Your task to perform on an android device: install app "Facebook Messenger" Image 0: 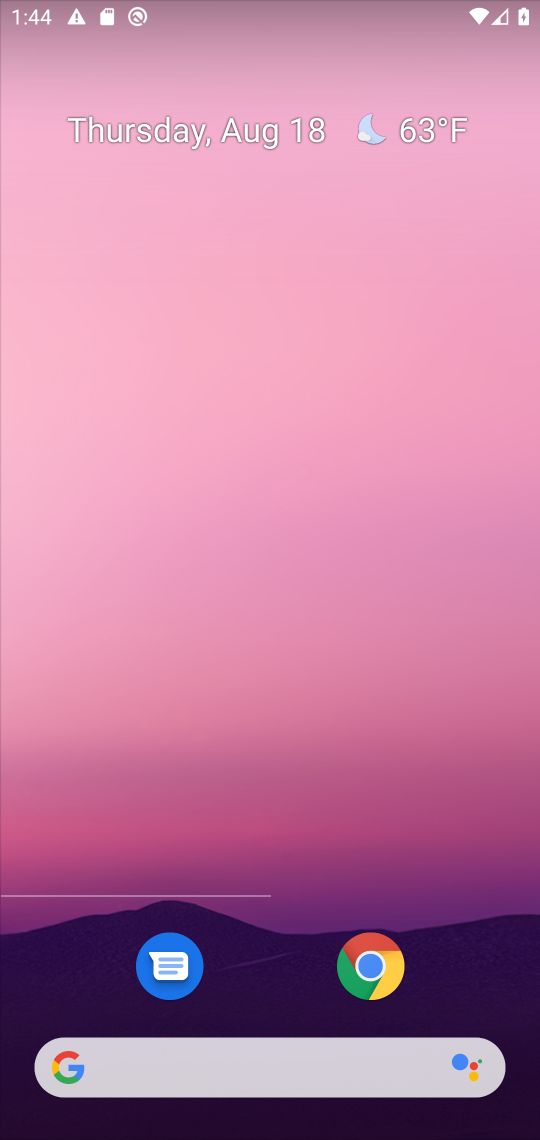
Step 0: press home button
Your task to perform on an android device: install app "Facebook Messenger" Image 1: 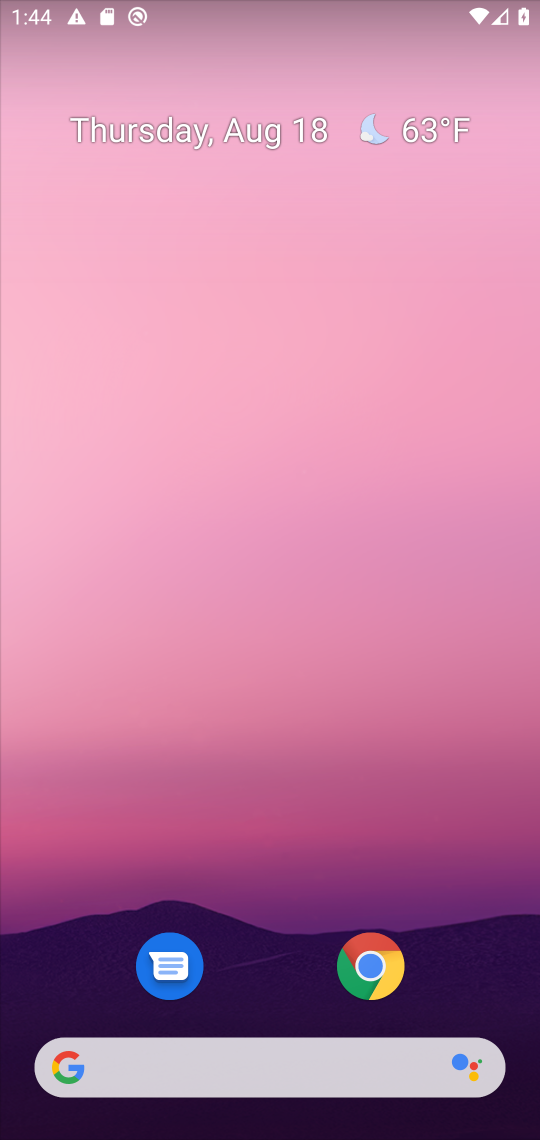
Step 1: drag from (267, 1012) to (344, 135)
Your task to perform on an android device: install app "Facebook Messenger" Image 2: 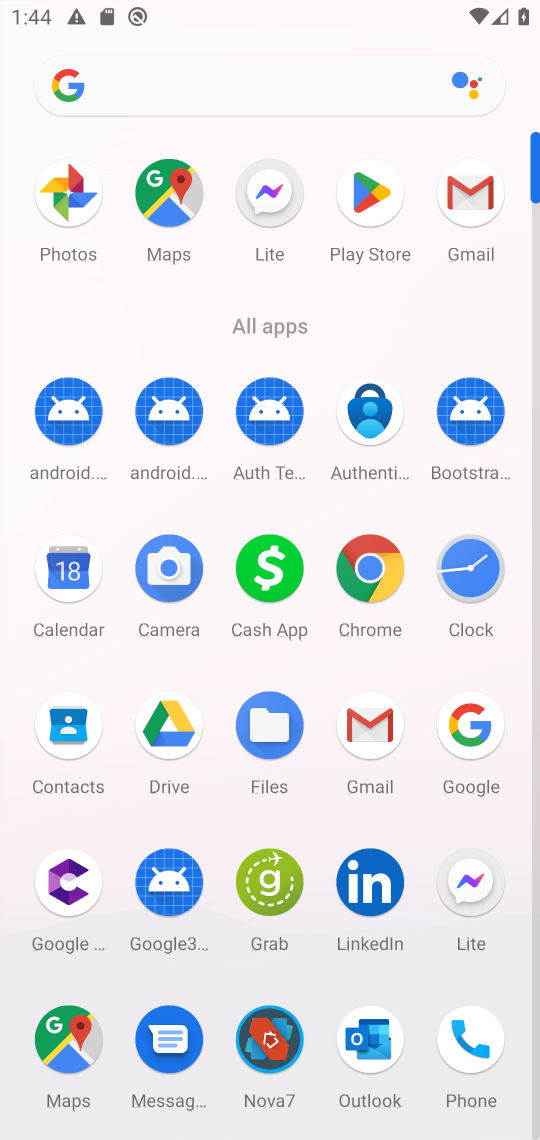
Step 2: click (363, 179)
Your task to perform on an android device: install app "Facebook Messenger" Image 3: 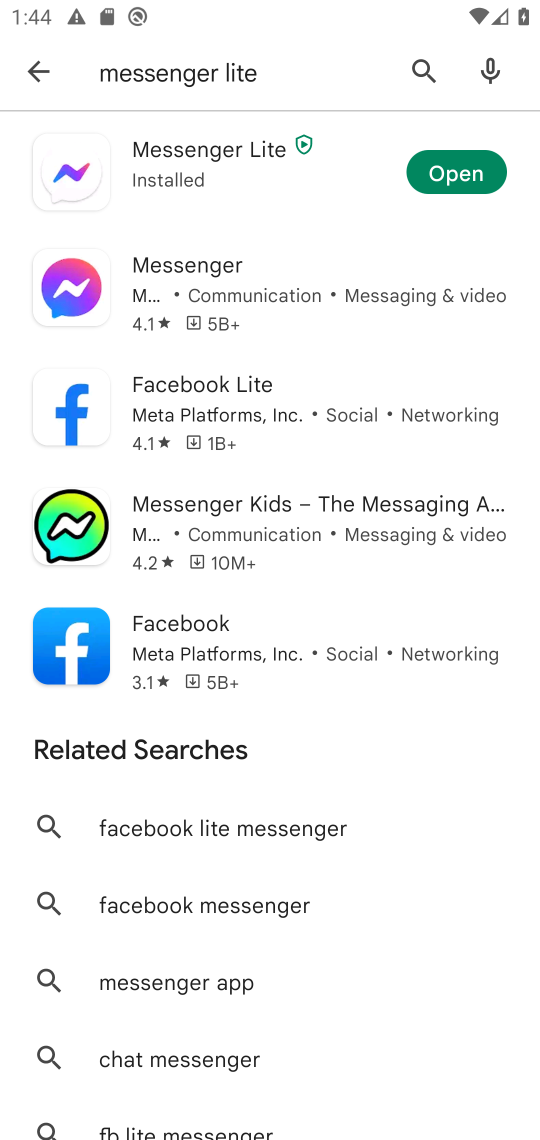
Step 3: click (44, 70)
Your task to perform on an android device: install app "Facebook Messenger" Image 4: 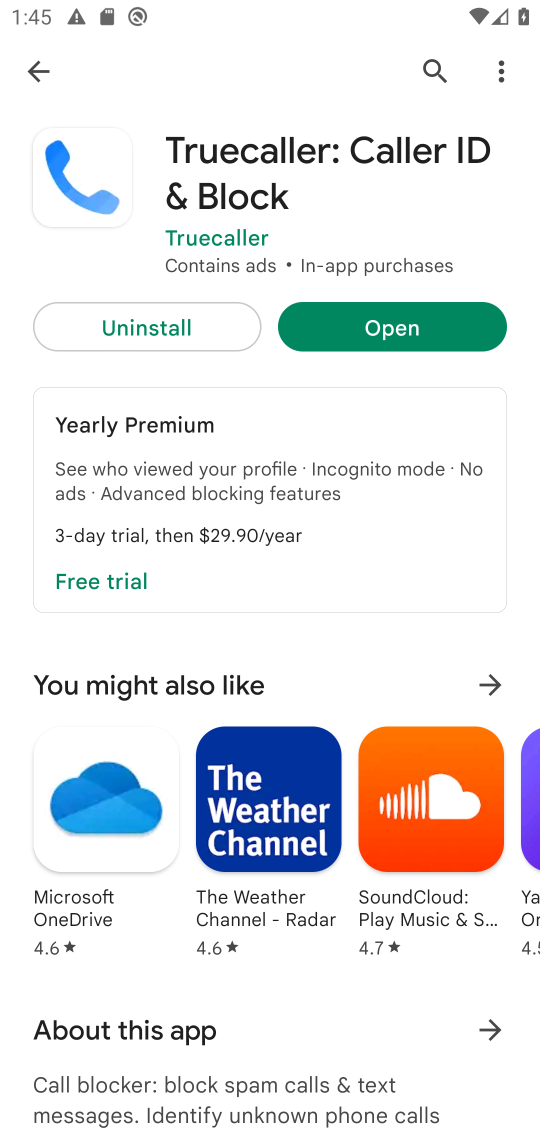
Step 4: click (429, 50)
Your task to perform on an android device: install app "Facebook Messenger" Image 5: 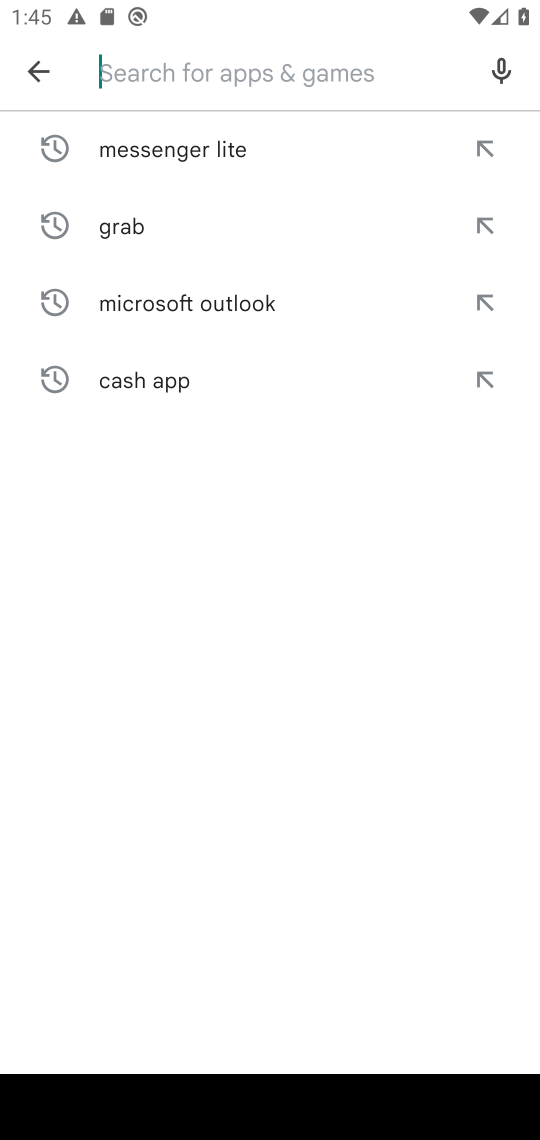
Step 5: type "Facebook Messenger"
Your task to perform on an android device: install app "Facebook Messenger" Image 6: 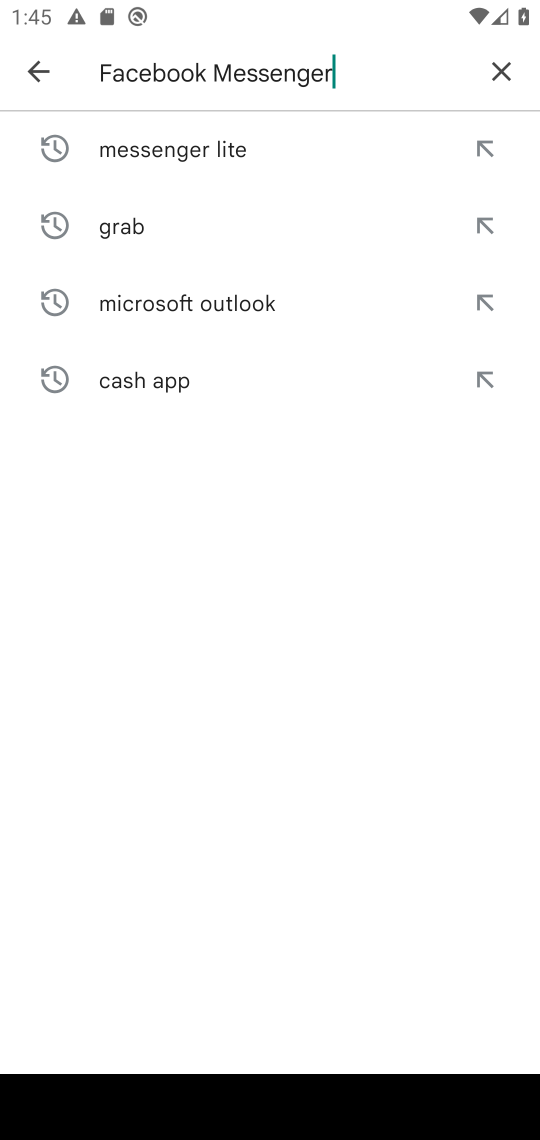
Step 6: type ""
Your task to perform on an android device: install app "Facebook Messenger" Image 7: 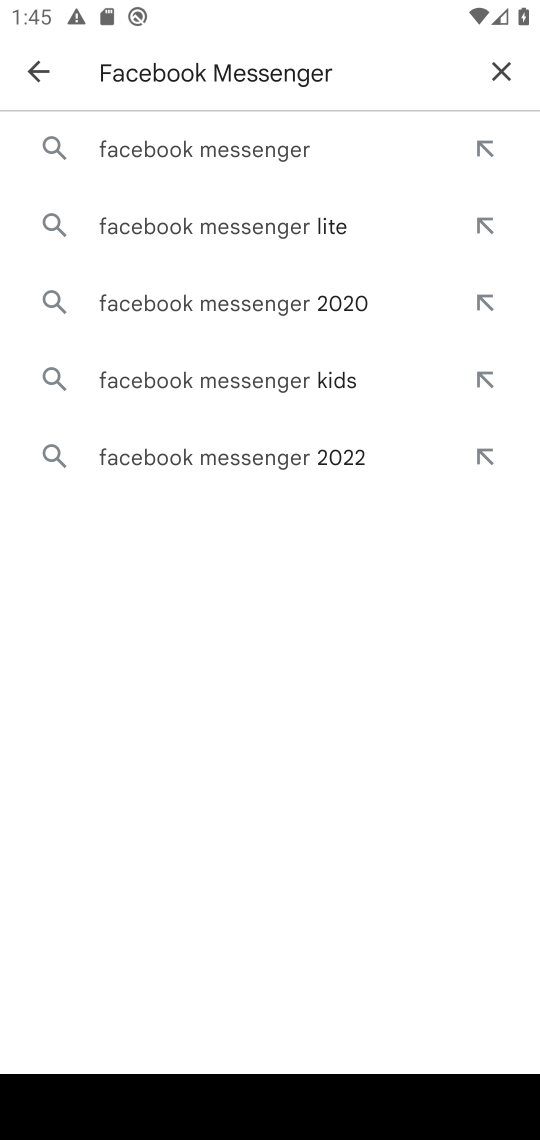
Step 7: click (207, 156)
Your task to perform on an android device: install app "Facebook Messenger" Image 8: 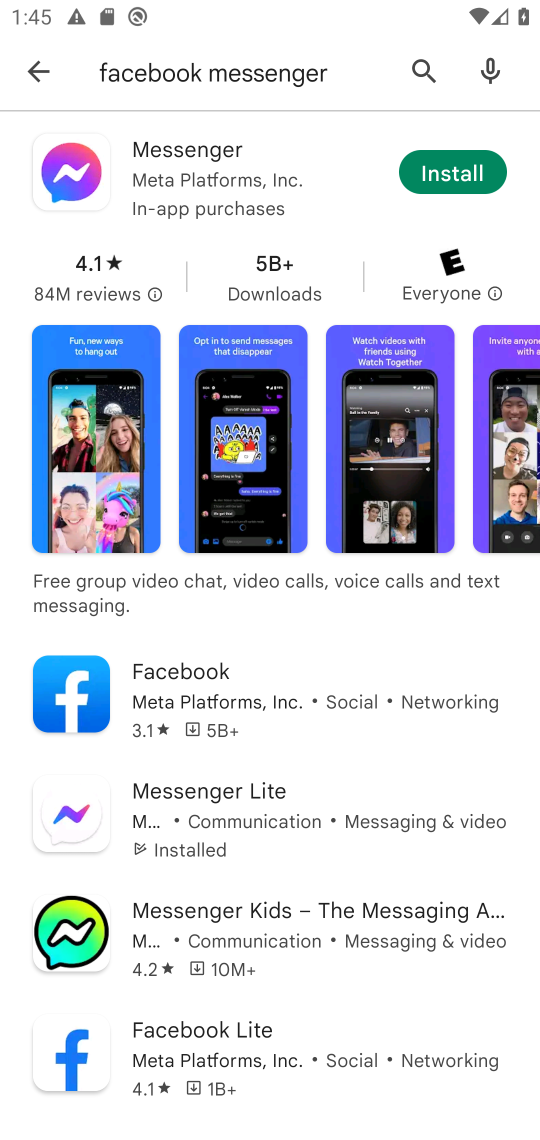
Step 8: click (437, 176)
Your task to perform on an android device: install app "Facebook Messenger" Image 9: 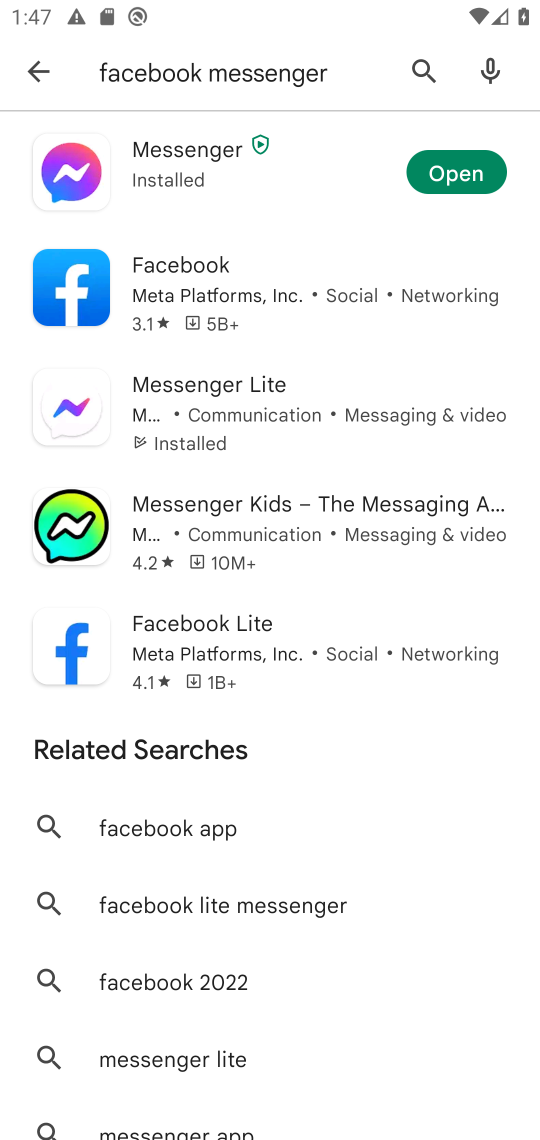
Step 9: click (458, 166)
Your task to perform on an android device: install app "Facebook Messenger" Image 10: 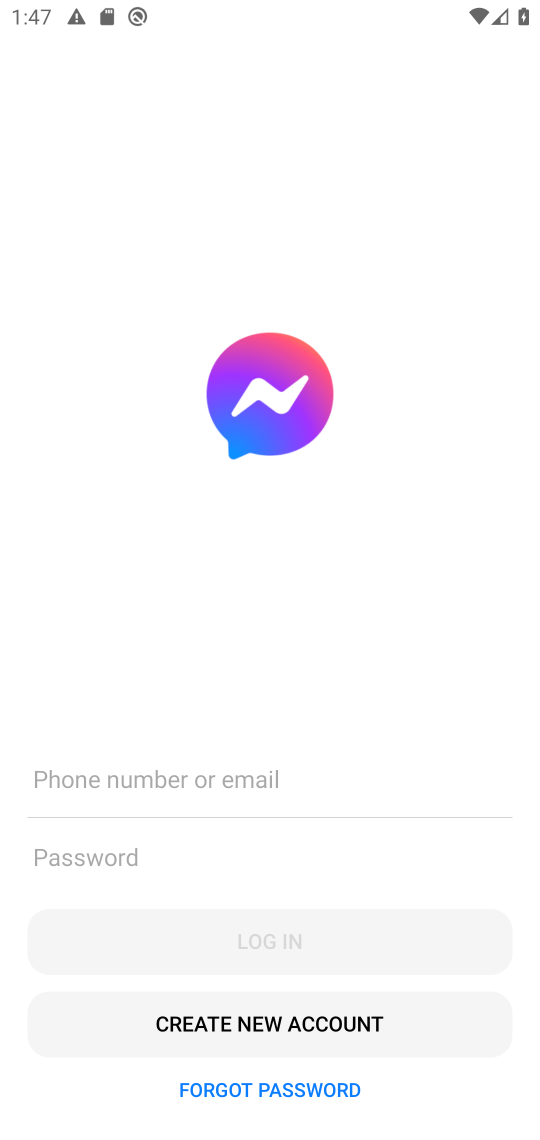
Step 10: task complete